Your task to perform on an android device: Search for sushi restaurants on Maps Image 0: 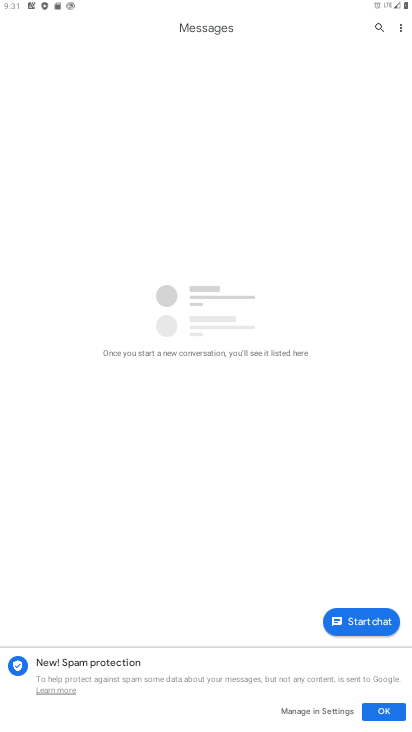
Step 0: press home button
Your task to perform on an android device: Search for sushi restaurants on Maps Image 1: 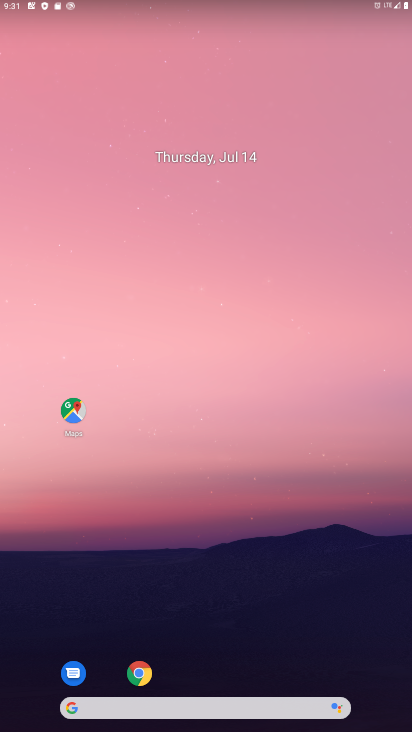
Step 1: click (72, 414)
Your task to perform on an android device: Search for sushi restaurants on Maps Image 2: 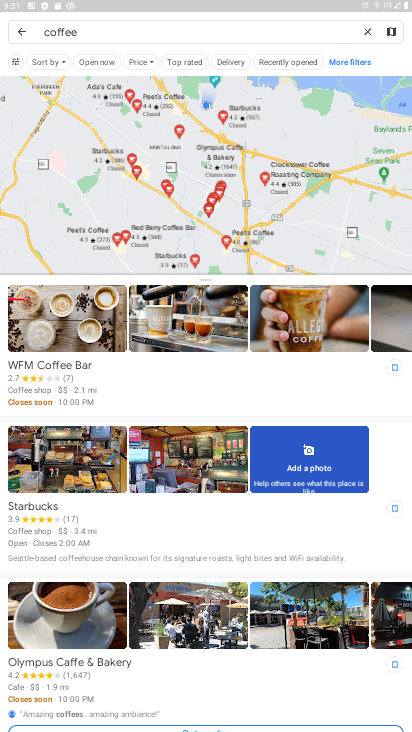
Step 2: click (367, 34)
Your task to perform on an android device: Search for sushi restaurants on Maps Image 3: 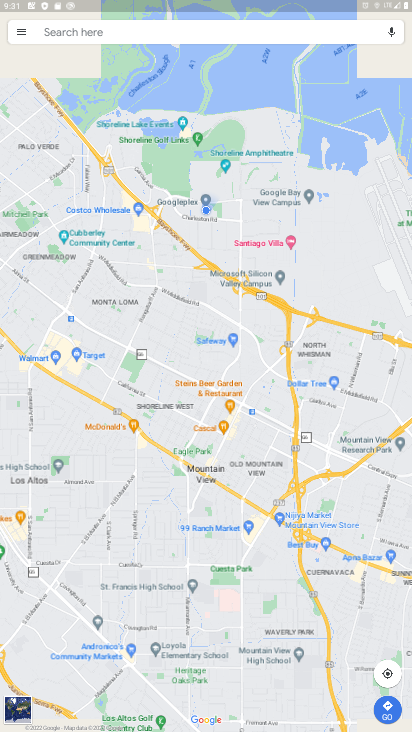
Step 3: click (206, 28)
Your task to perform on an android device: Search for sushi restaurants on Maps Image 4: 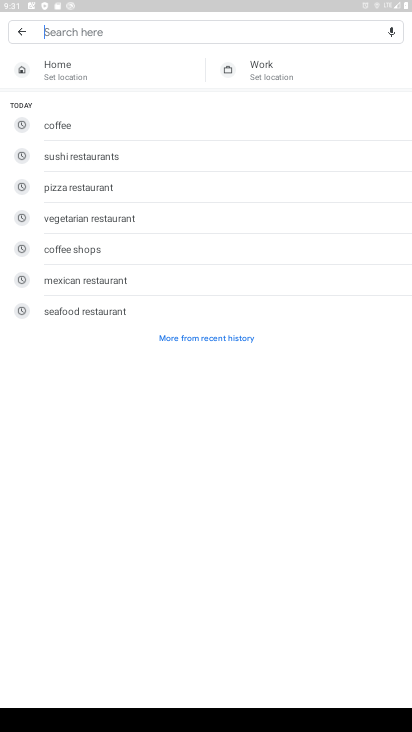
Step 4: type "sushi restaurants"
Your task to perform on an android device: Search for sushi restaurants on Maps Image 5: 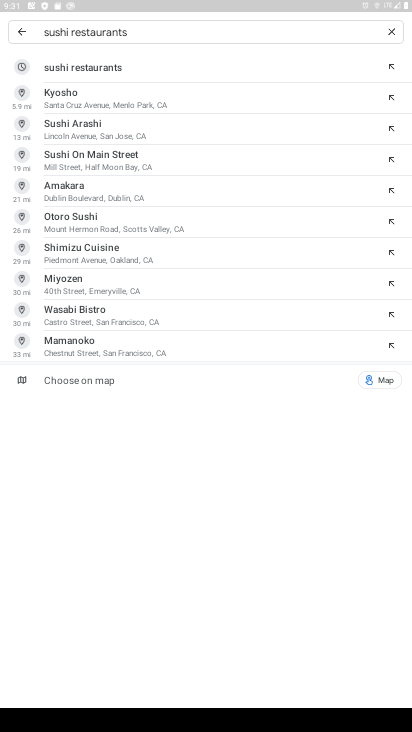
Step 5: click (109, 67)
Your task to perform on an android device: Search for sushi restaurants on Maps Image 6: 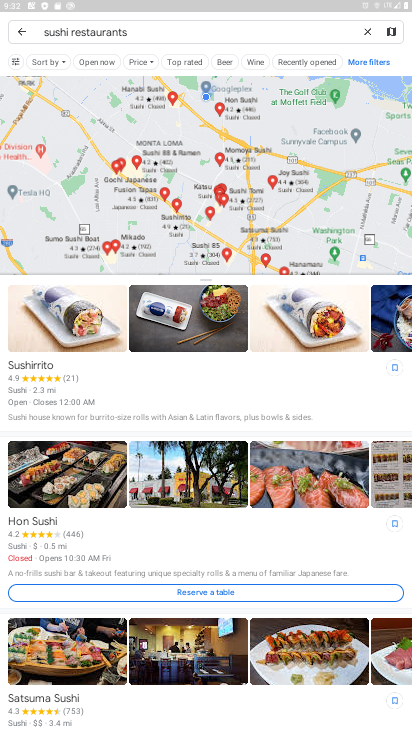
Step 6: task complete